Your task to perform on an android device: toggle javascript in the chrome app Image 0: 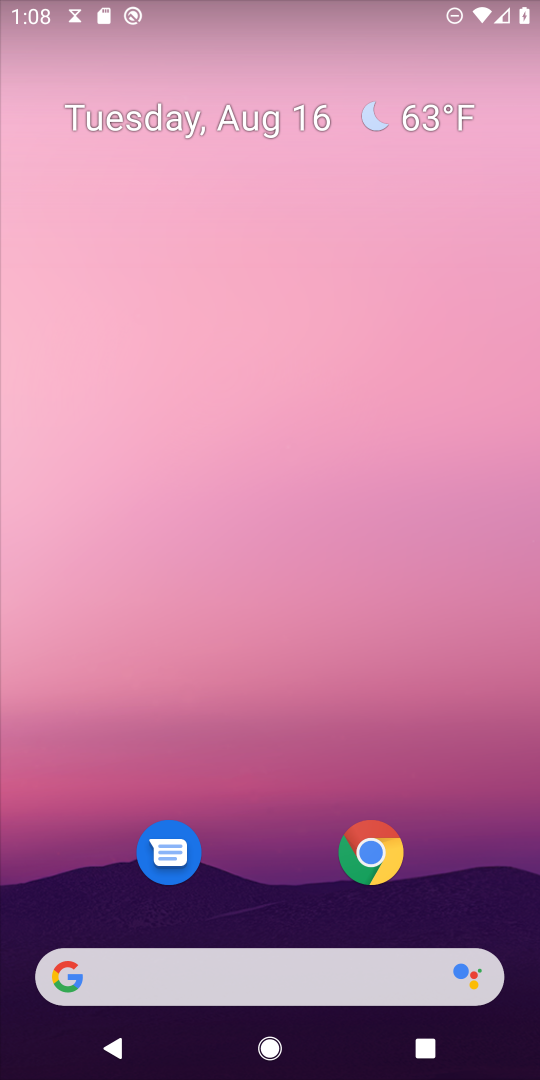
Step 0: click (358, 844)
Your task to perform on an android device: toggle javascript in the chrome app Image 1: 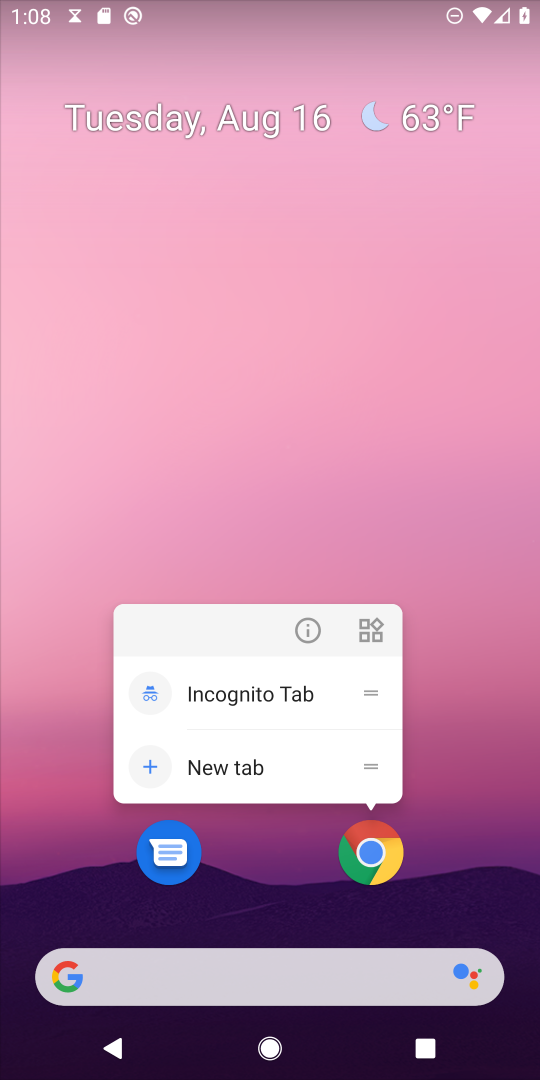
Step 1: click (368, 846)
Your task to perform on an android device: toggle javascript in the chrome app Image 2: 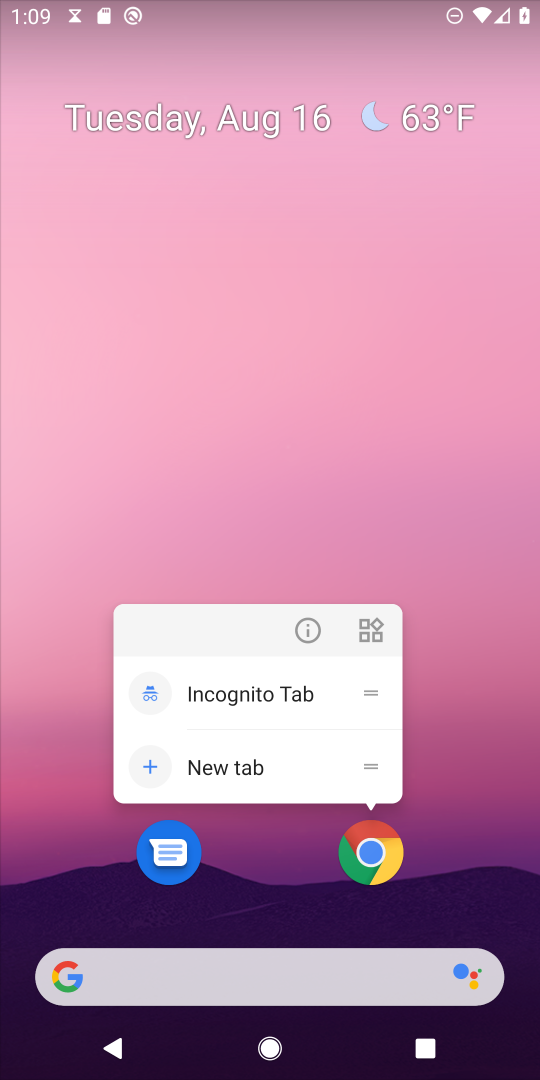
Step 2: click (382, 846)
Your task to perform on an android device: toggle javascript in the chrome app Image 3: 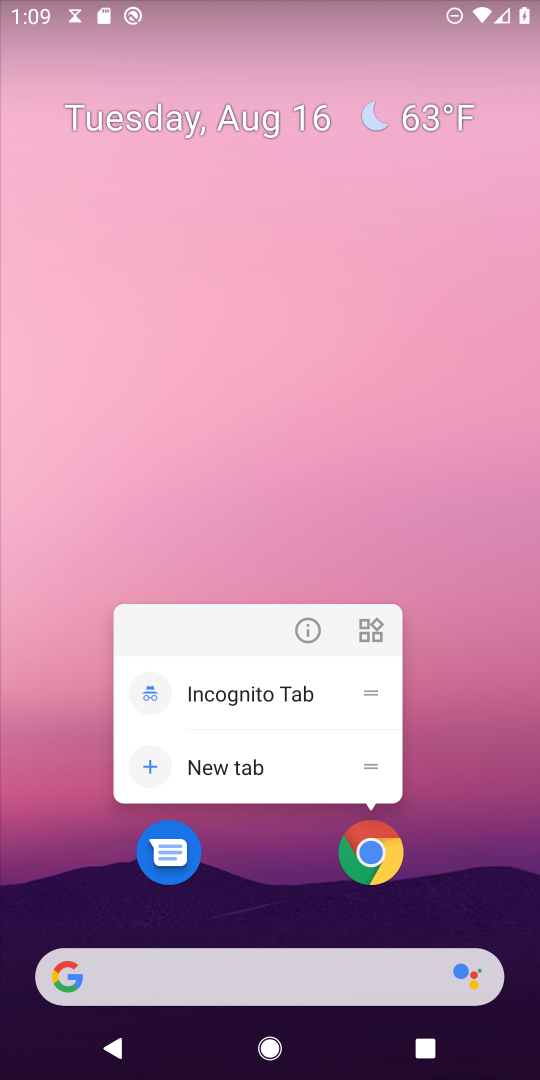
Step 3: click (379, 858)
Your task to perform on an android device: toggle javascript in the chrome app Image 4: 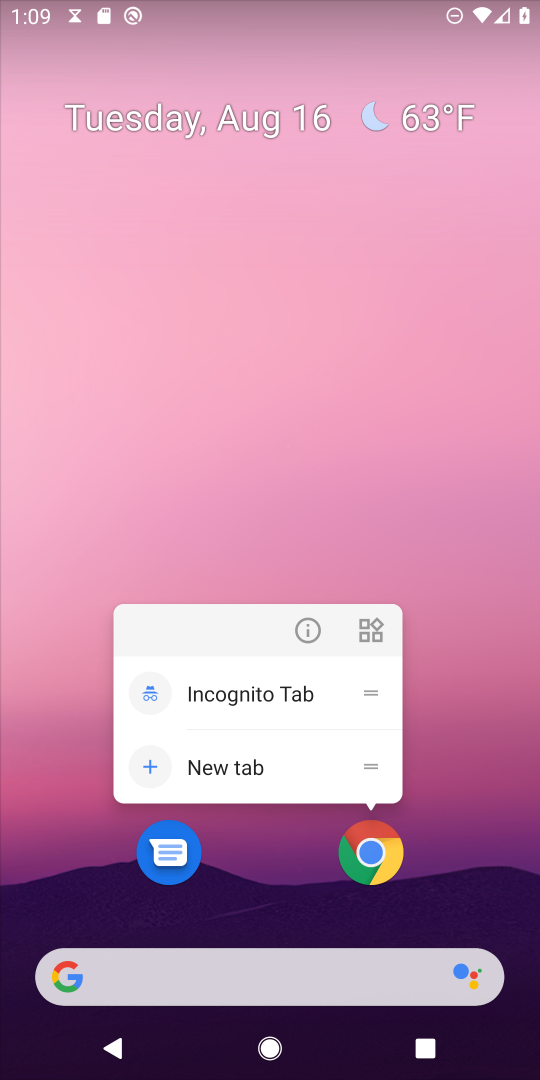
Step 4: click (363, 861)
Your task to perform on an android device: toggle javascript in the chrome app Image 5: 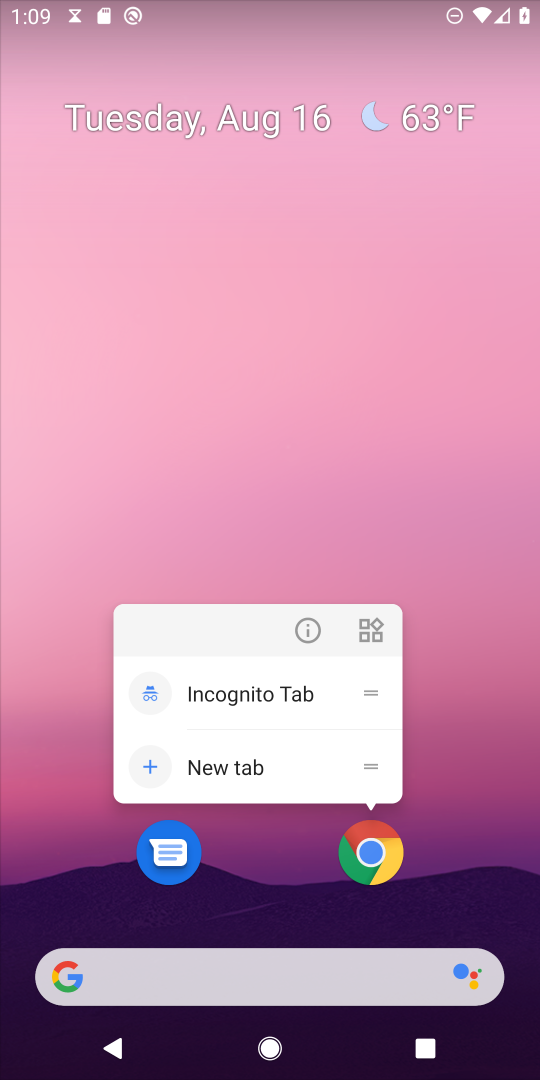
Step 5: click (368, 854)
Your task to perform on an android device: toggle javascript in the chrome app Image 6: 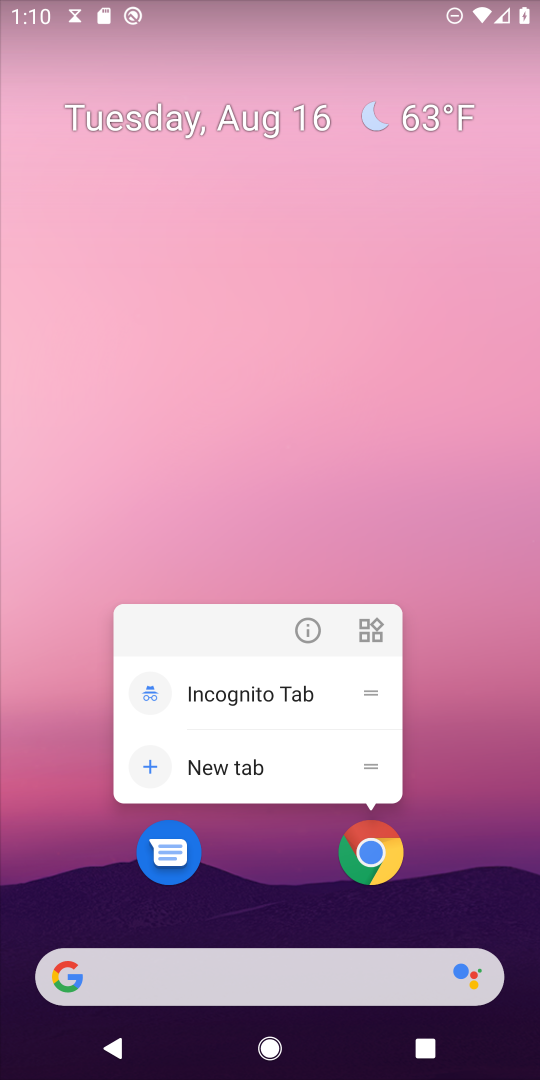
Step 6: click (368, 854)
Your task to perform on an android device: toggle javascript in the chrome app Image 7: 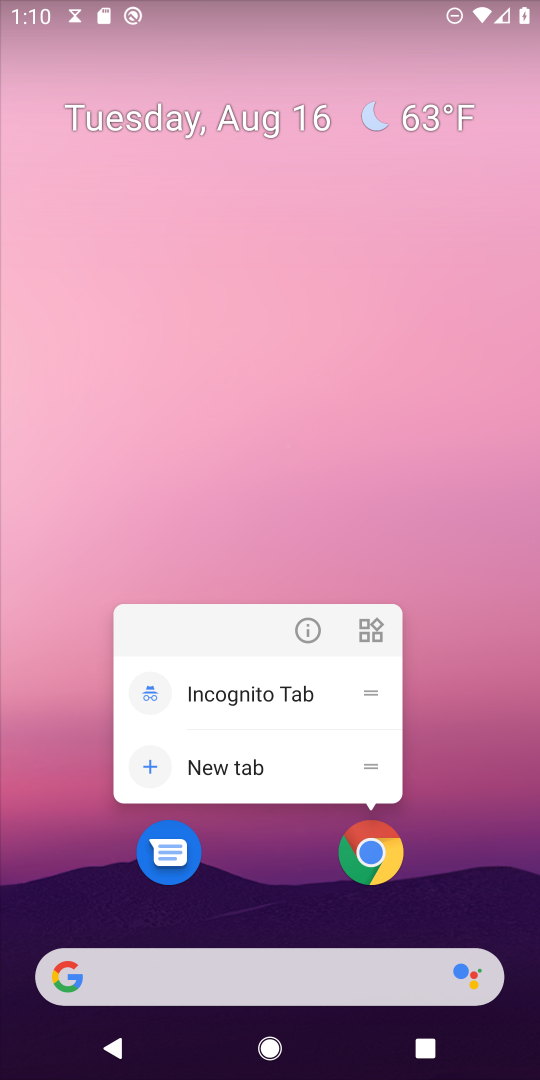
Step 7: click (376, 849)
Your task to perform on an android device: toggle javascript in the chrome app Image 8: 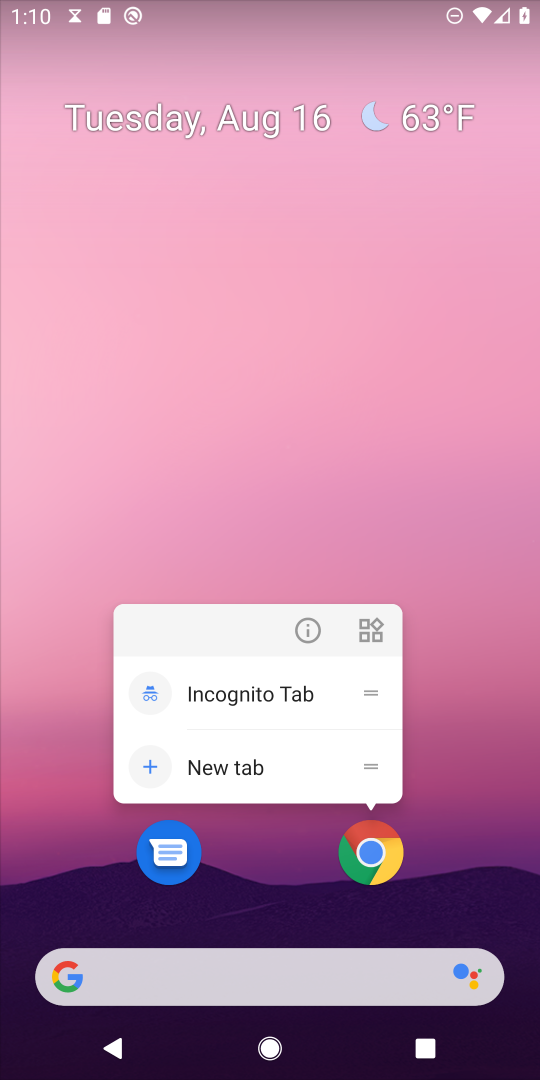
Step 8: click (382, 851)
Your task to perform on an android device: toggle javascript in the chrome app Image 9: 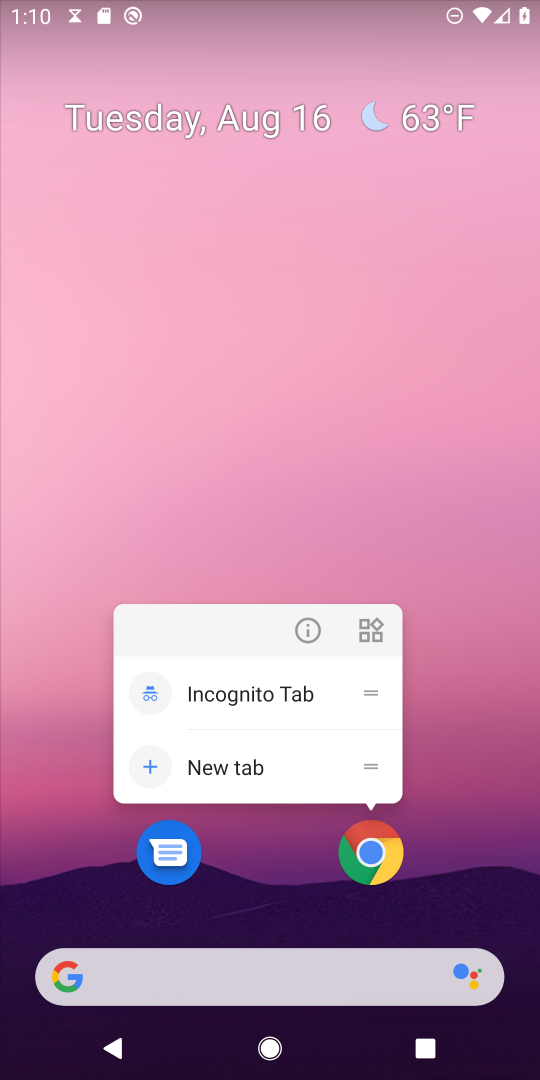
Step 9: click (356, 880)
Your task to perform on an android device: toggle javascript in the chrome app Image 10: 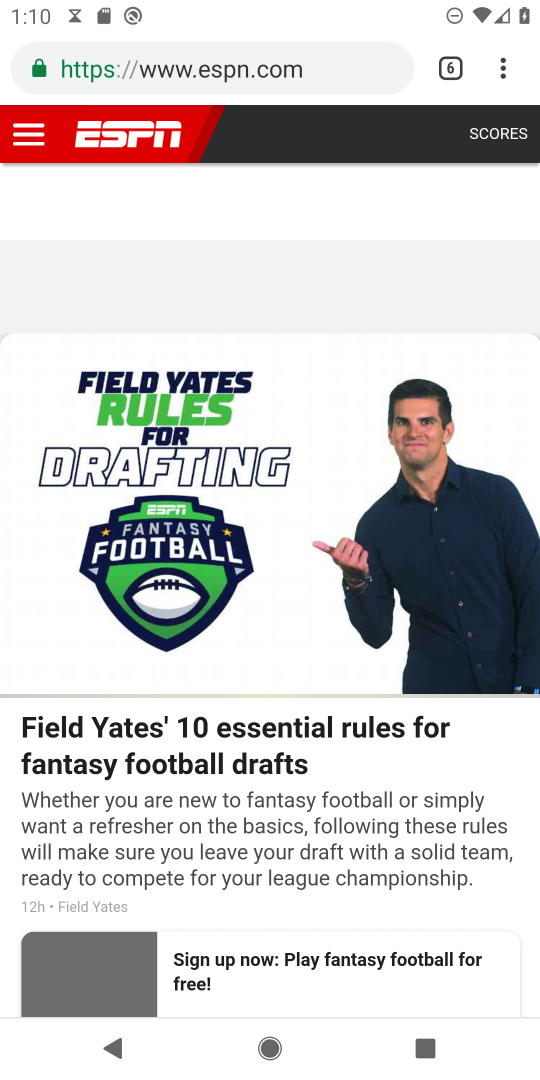
Step 10: drag from (505, 59) to (295, 896)
Your task to perform on an android device: toggle javascript in the chrome app Image 11: 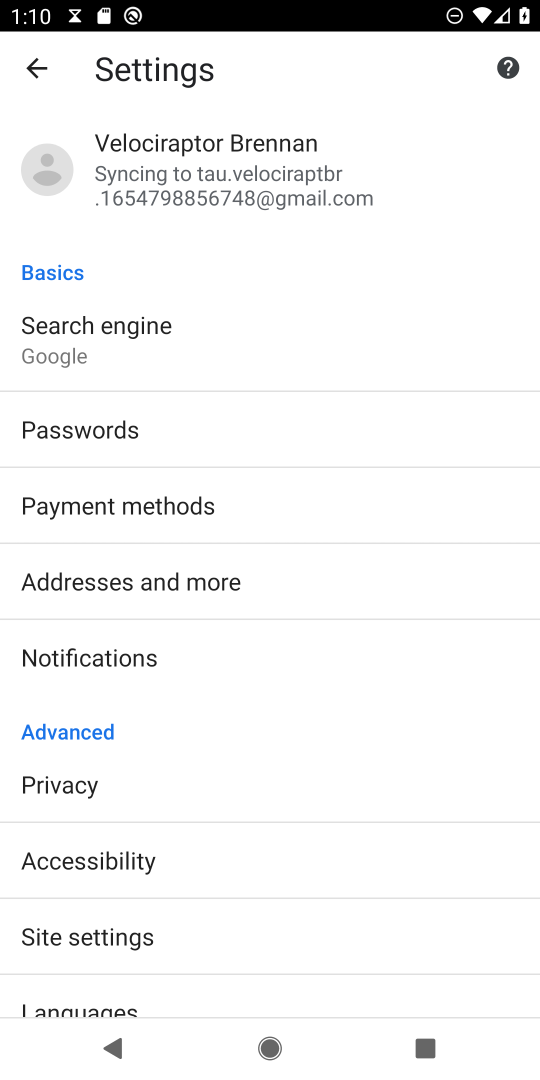
Step 11: click (83, 938)
Your task to perform on an android device: toggle javascript in the chrome app Image 12: 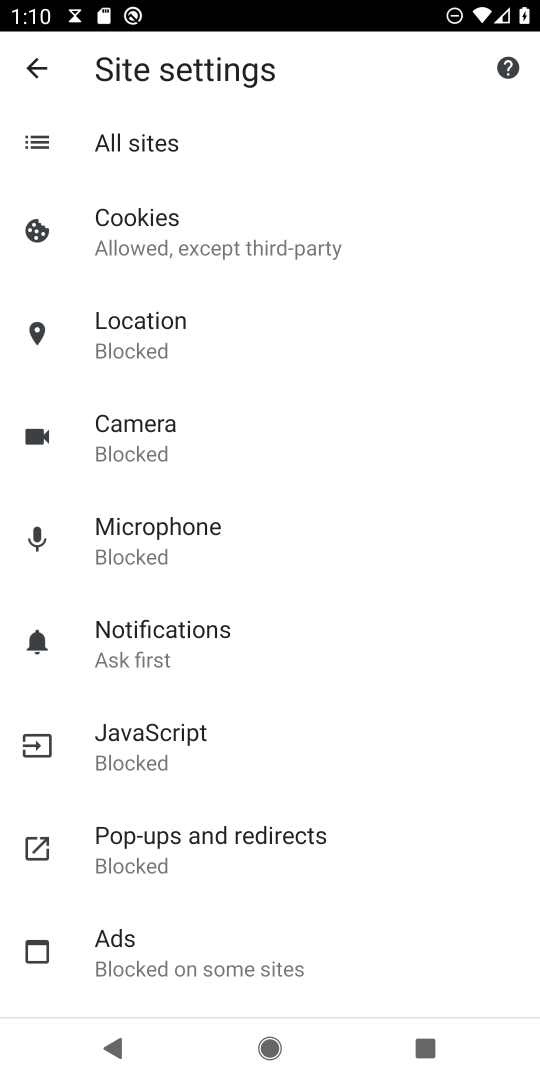
Step 12: click (118, 726)
Your task to perform on an android device: toggle javascript in the chrome app Image 13: 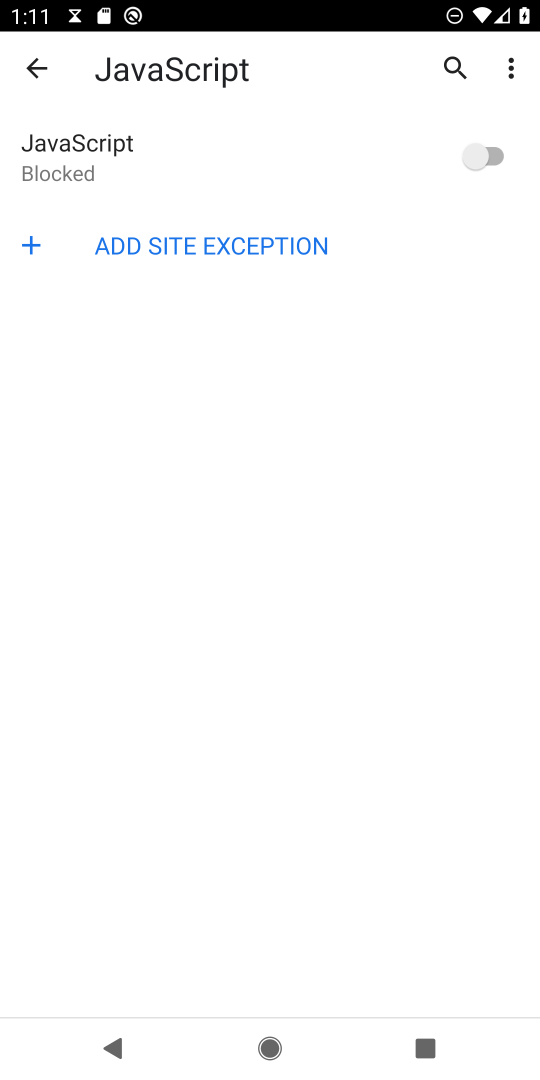
Step 13: click (479, 165)
Your task to perform on an android device: toggle javascript in the chrome app Image 14: 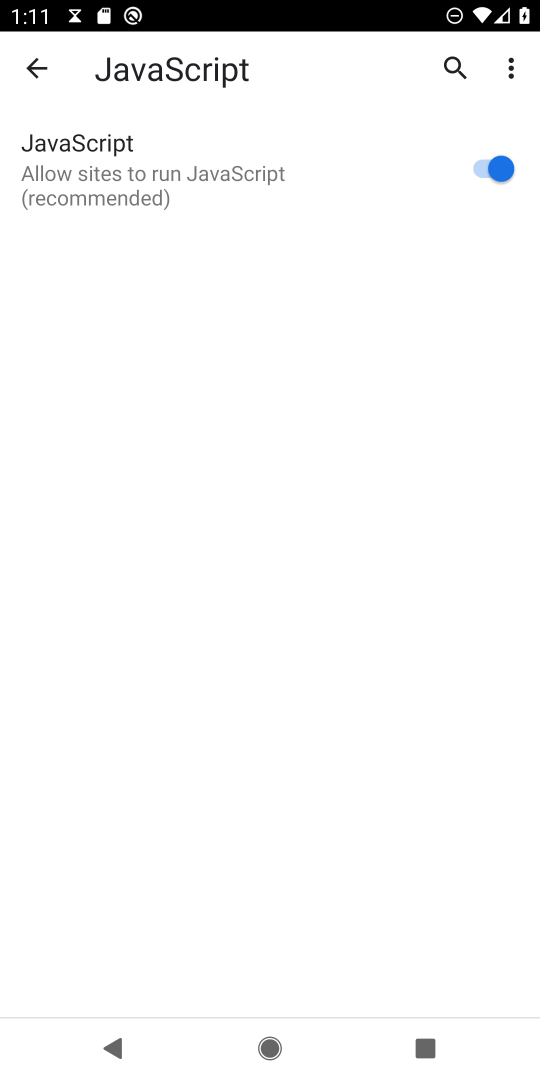
Step 14: task complete